Your task to perform on an android device: show emergency info Image 0: 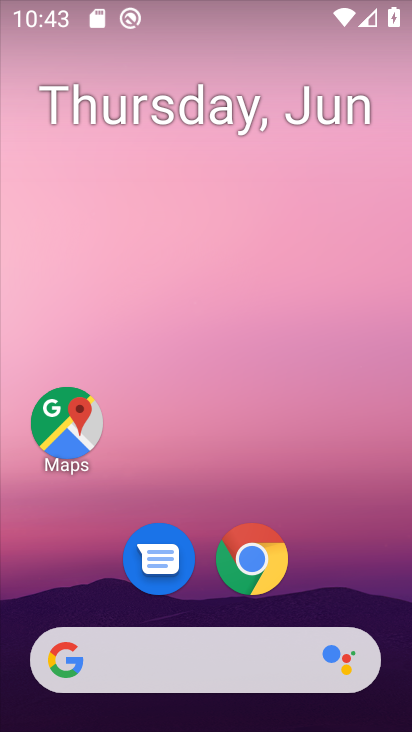
Step 0: drag from (75, 598) to (187, 154)
Your task to perform on an android device: show emergency info Image 1: 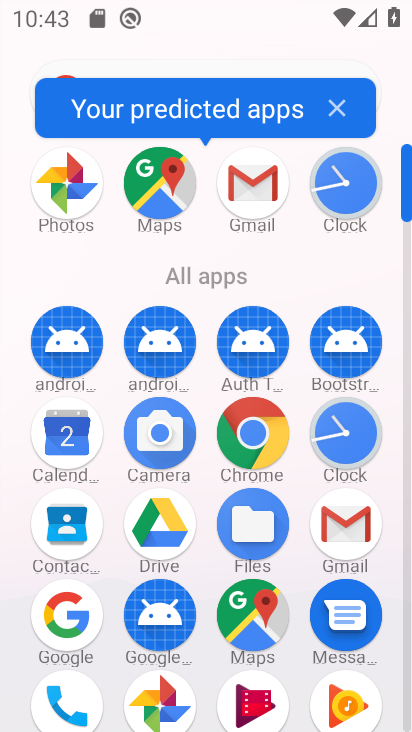
Step 1: drag from (175, 656) to (263, 311)
Your task to perform on an android device: show emergency info Image 2: 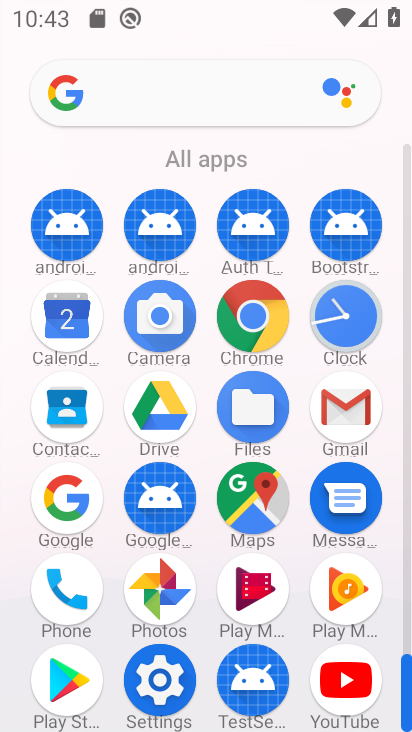
Step 2: click (177, 660)
Your task to perform on an android device: show emergency info Image 3: 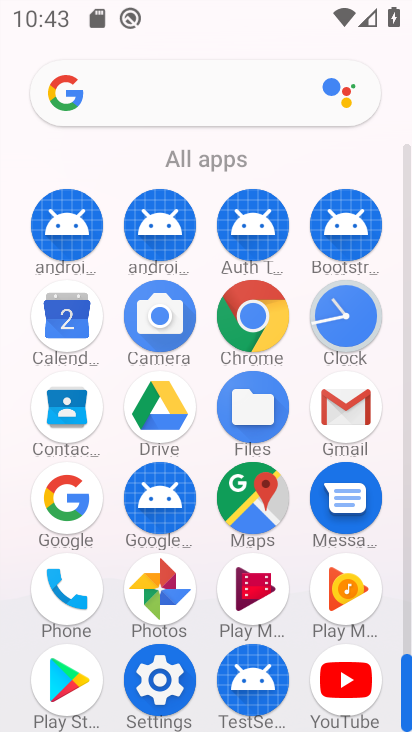
Step 3: click (177, 660)
Your task to perform on an android device: show emergency info Image 4: 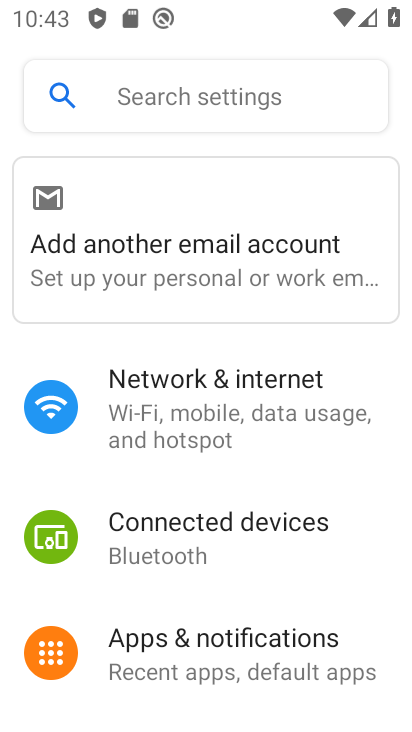
Step 4: drag from (211, 646) to (345, 106)
Your task to perform on an android device: show emergency info Image 5: 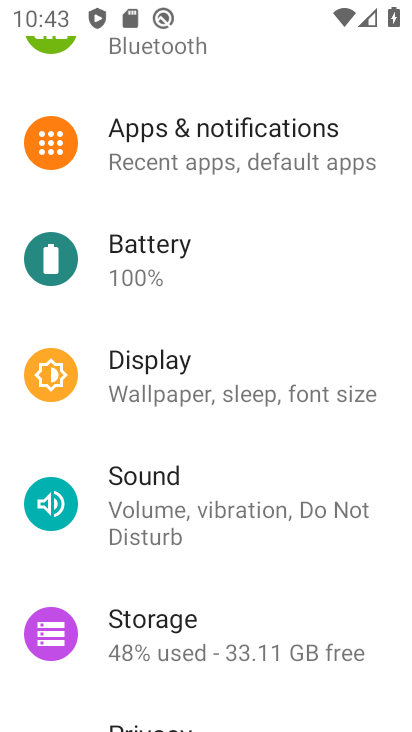
Step 5: drag from (192, 521) to (294, 112)
Your task to perform on an android device: show emergency info Image 6: 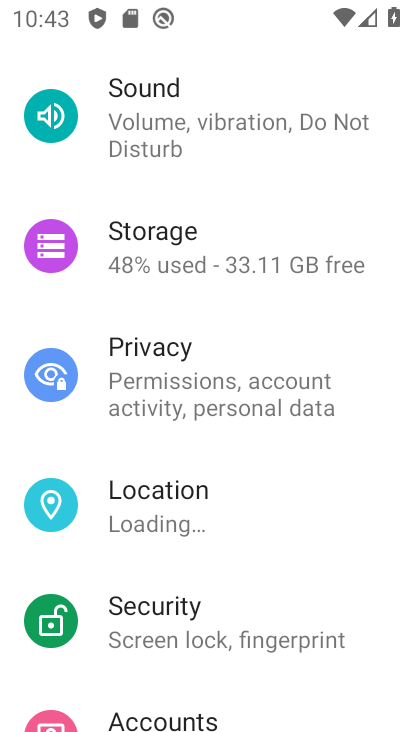
Step 6: drag from (207, 525) to (307, 126)
Your task to perform on an android device: show emergency info Image 7: 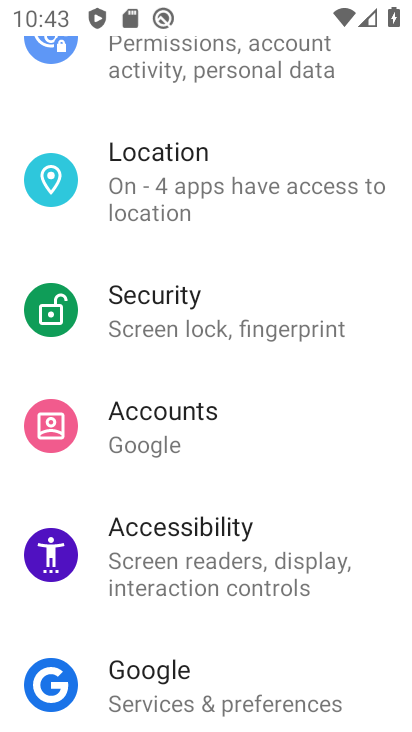
Step 7: drag from (264, 625) to (344, 198)
Your task to perform on an android device: show emergency info Image 8: 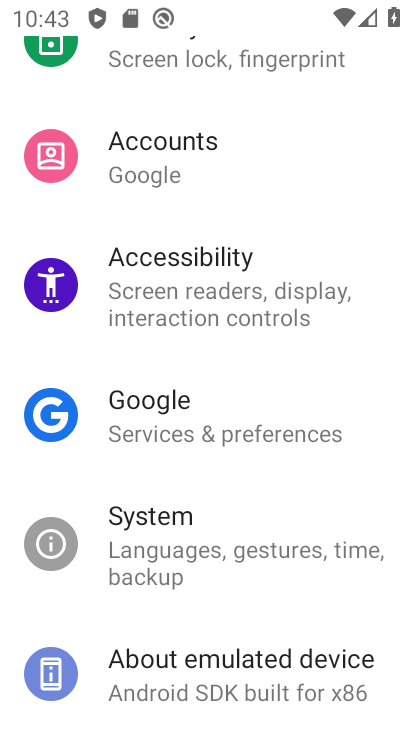
Step 8: click (277, 692)
Your task to perform on an android device: show emergency info Image 9: 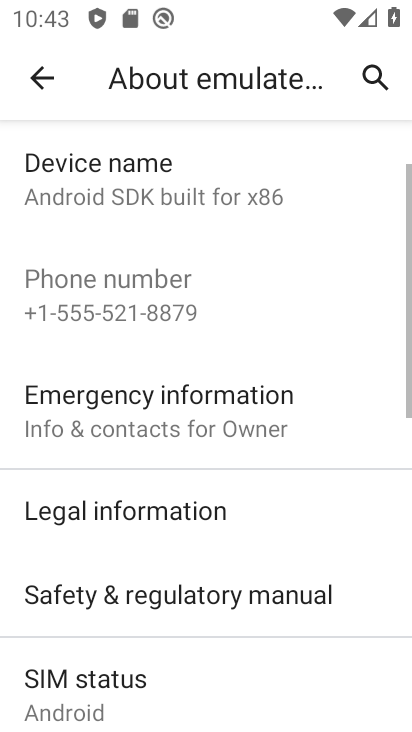
Step 9: drag from (229, 691) to (298, 390)
Your task to perform on an android device: show emergency info Image 10: 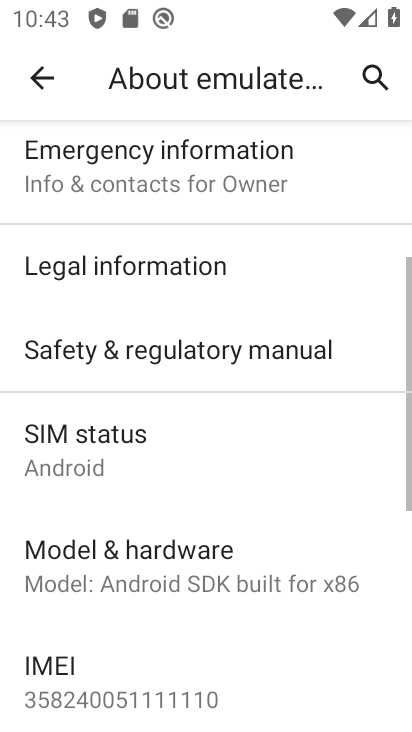
Step 10: drag from (207, 646) to (292, 394)
Your task to perform on an android device: show emergency info Image 11: 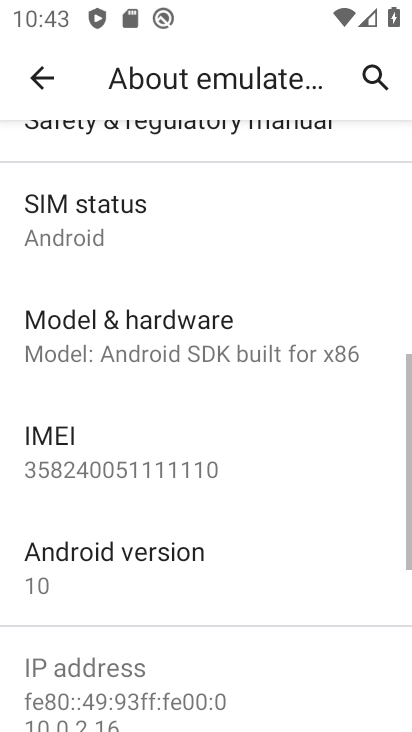
Step 11: drag from (234, 316) to (219, 659)
Your task to perform on an android device: show emergency info Image 12: 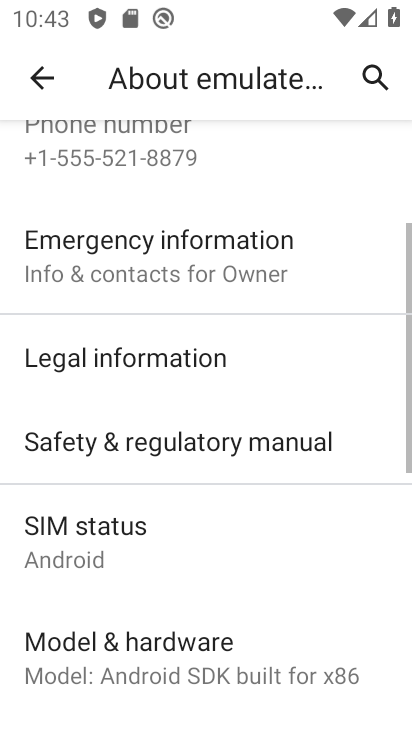
Step 12: click (210, 313)
Your task to perform on an android device: show emergency info Image 13: 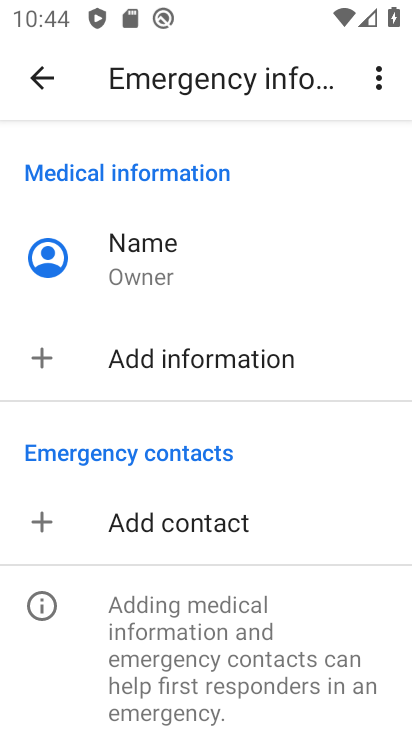
Step 13: task complete